Your task to perform on an android device: Turn on the flashlight Image 0: 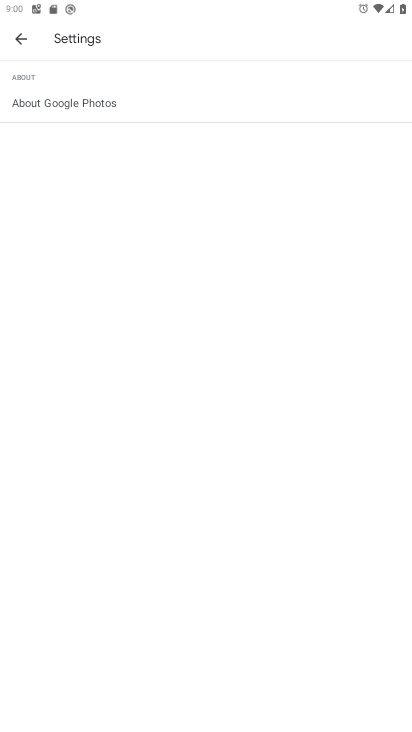
Step 0: press home button
Your task to perform on an android device: Turn on the flashlight Image 1: 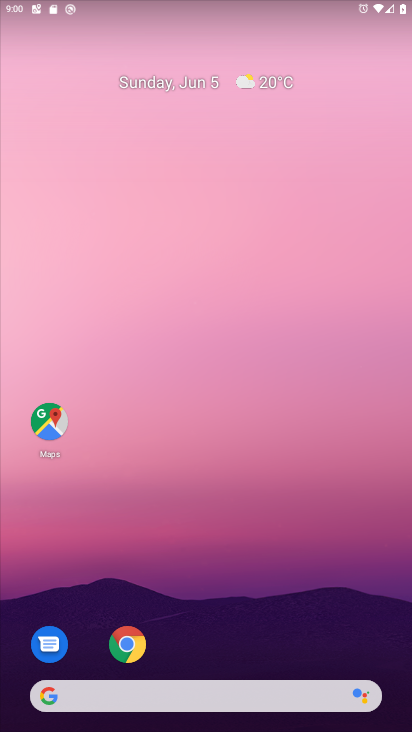
Step 1: drag from (334, 594) to (335, 113)
Your task to perform on an android device: Turn on the flashlight Image 2: 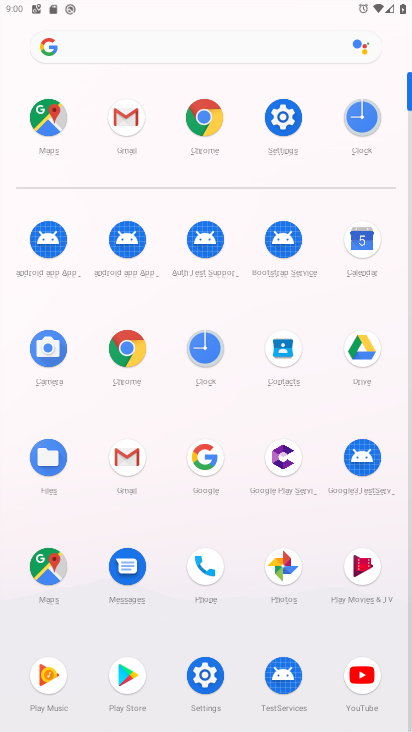
Step 2: click (197, 672)
Your task to perform on an android device: Turn on the flashlight Image 3: 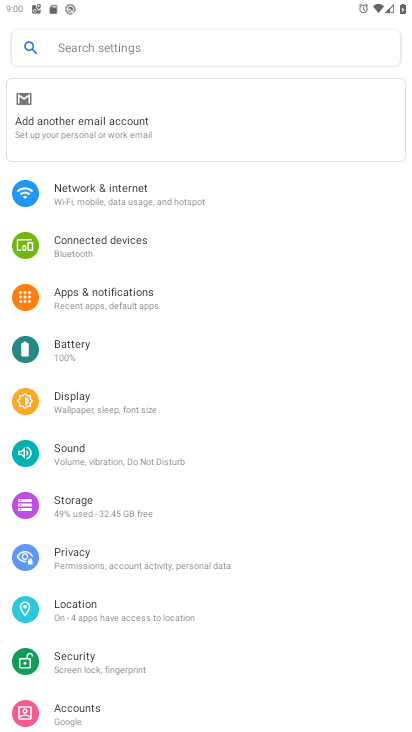
Step 3: drag from (216, 640) to (253, 330)
Your task to perform on an android device: Turn on the flashlight Image 4: 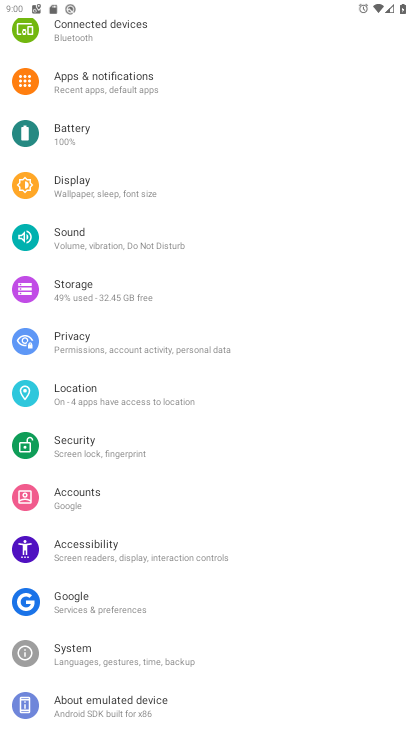
Step 4: drag from (220, 91) to (177, 527)
Your task to perform on an android device: Turn on the flashlight Image 5: 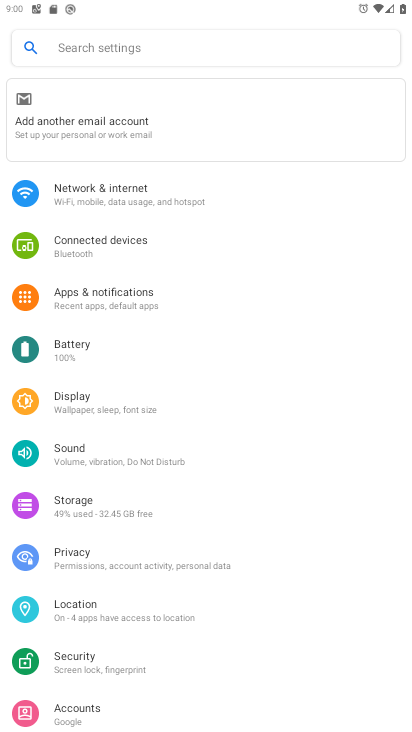
Step 5: click (208, 54)
Your task to perform on an android device: Turn on the flashlight Image 6: 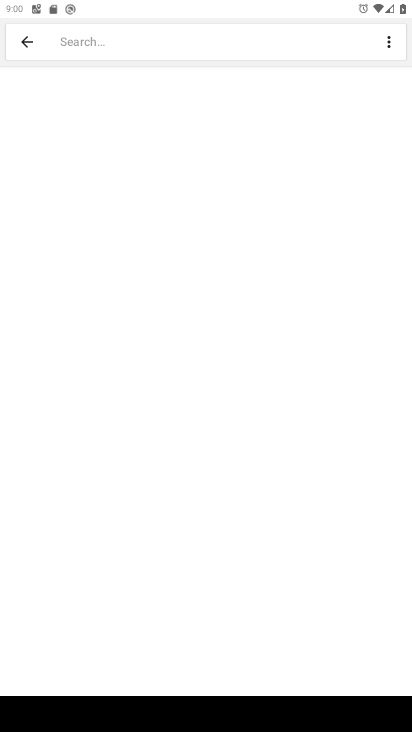
Step 6: type "flashlight"
Your task to perform on an android device: Turn on the flashlight Image 7: 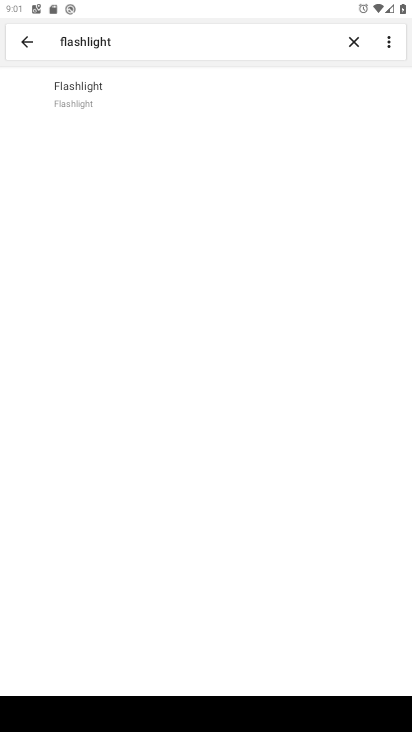
Step 7: click (103, 94)
Your task to perform on an android device: Turn on the flashlight Image 8: 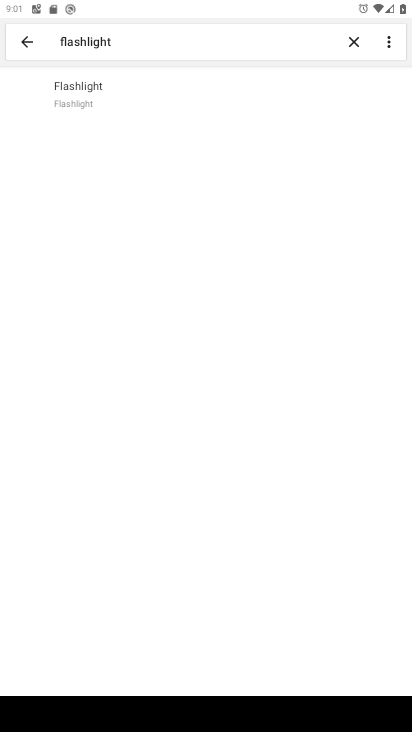
Step 8: task complete